Your task to perform on an android device: open a new tab in the chrome app Image 0: 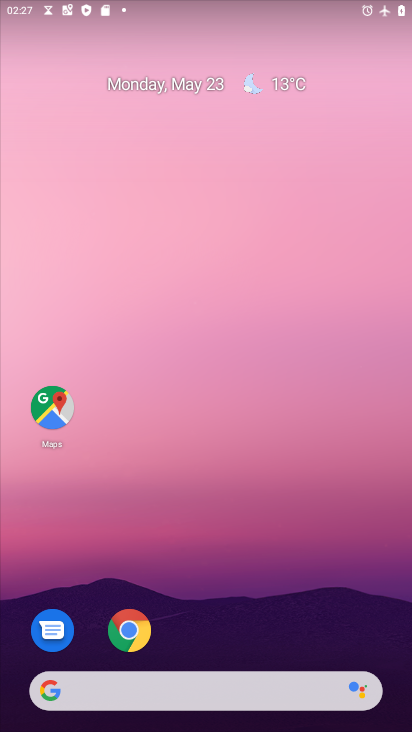
Step 0: click (131, 623)
Your task to perform on an android device: open a new tab in the chrome app Image 1: 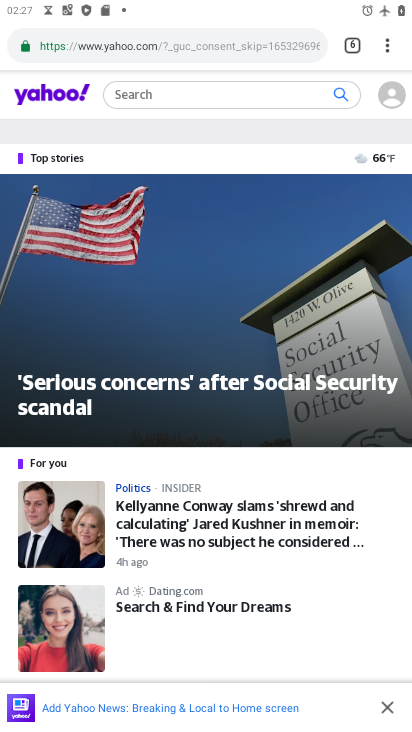
Step 1: click (387, 49)
Your task to perform on an android device: open a new tab in the chrome app Image 2: 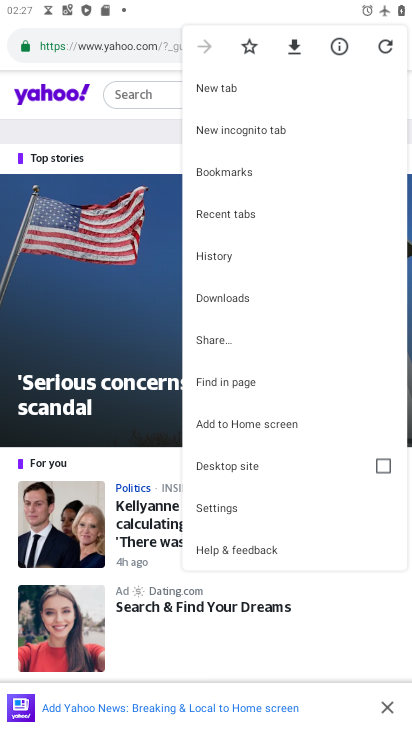
Step 2: click (243, 92)
Your task to perform on an android device: open a new tab in the chrome app Image 3: 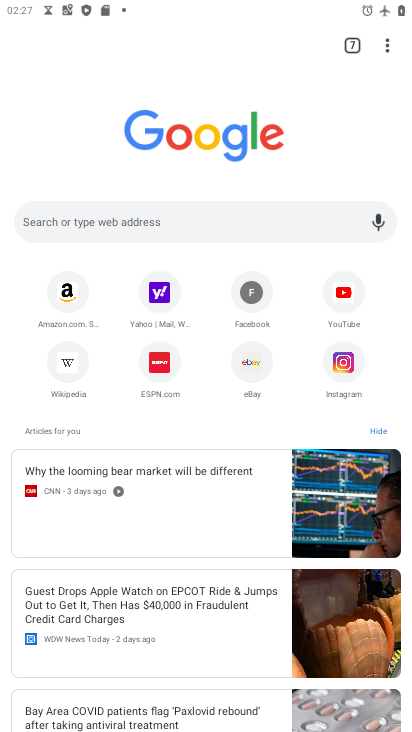
Step 3: task complete